Your task to perform on an android device: Empty the shopping cart on walmart.com. Add usb-b to the cart on walmart.com, then select checkout. Image 0: 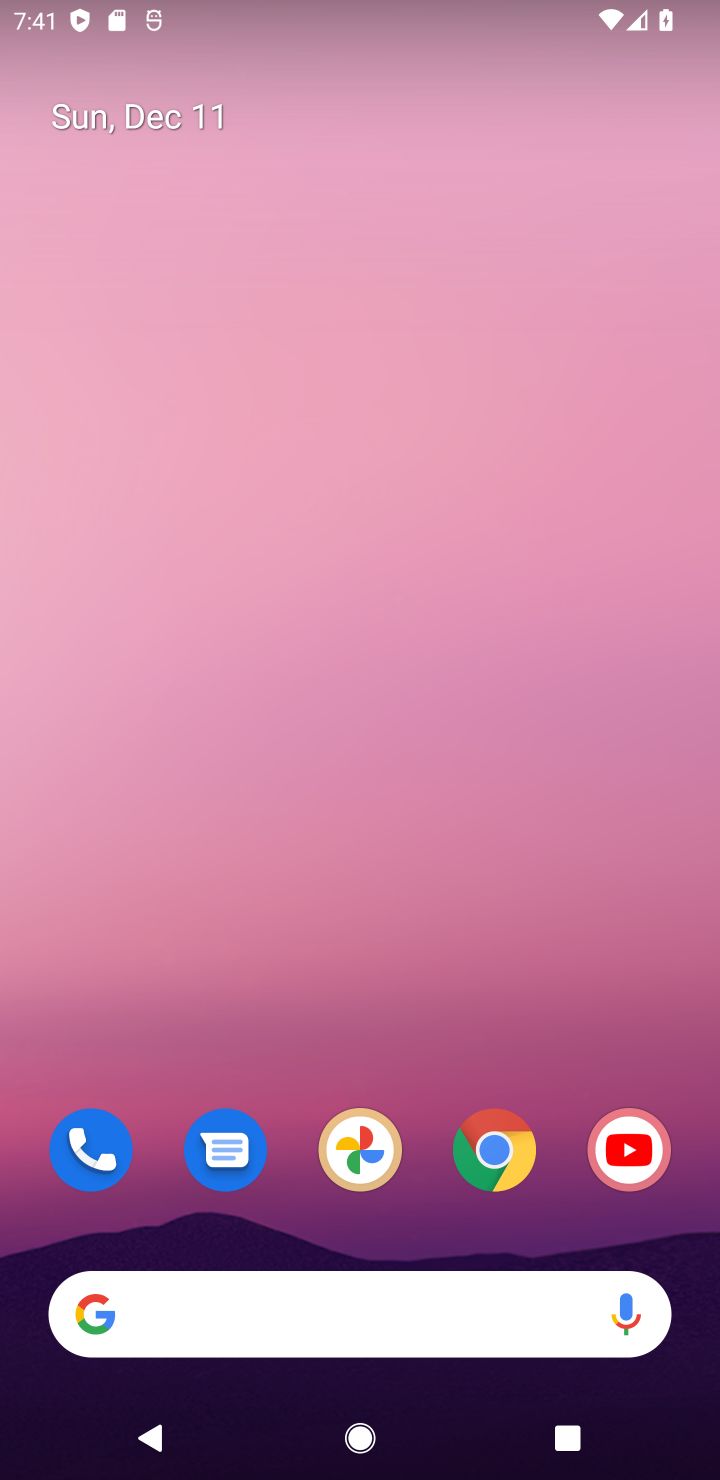
Step 0: click (496, 1152)
Your task to perform on an android device: Empty the shopping cart on walmart.com. Add usb-b to the cart on walmart.com, then select checkout. Image 1: 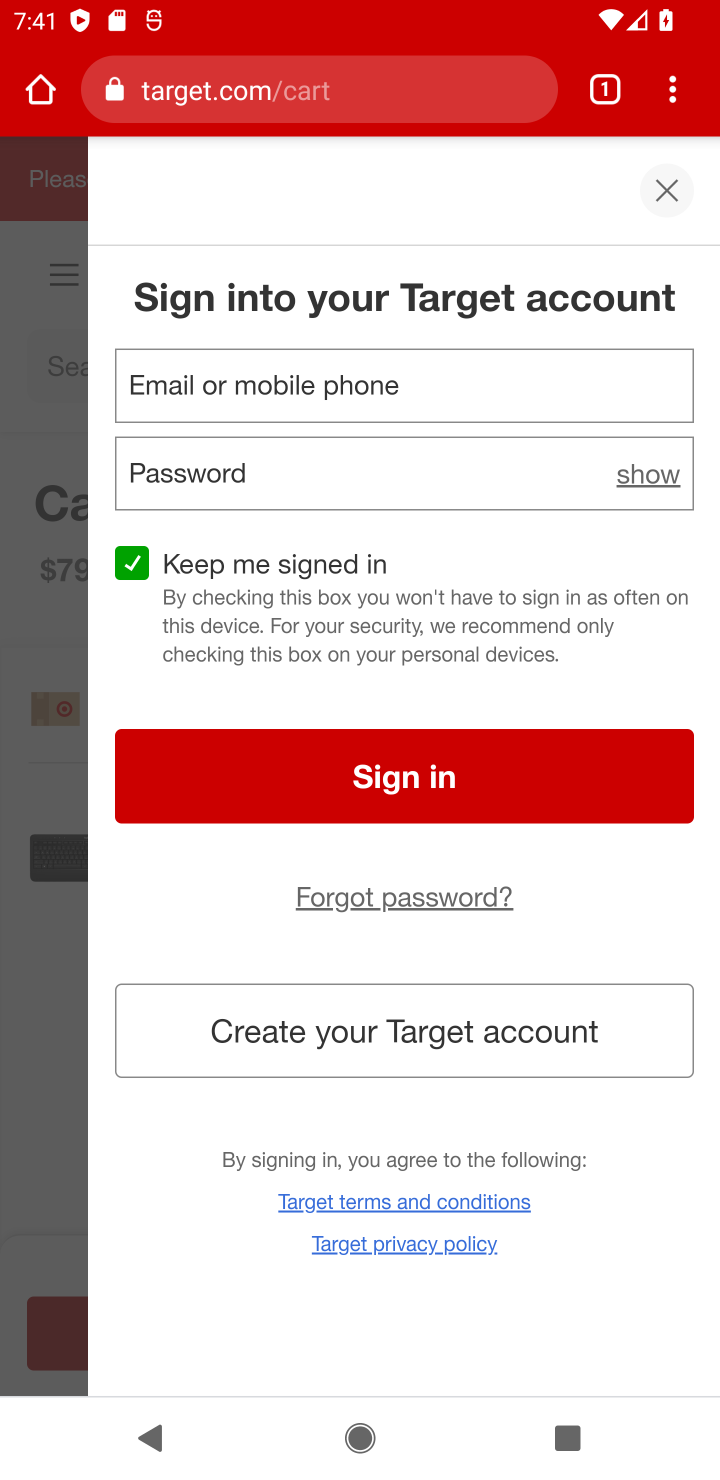
Step 1: click (442, 94)
Your task to perform on an android device: Empty the shopping cart on walmart.com. Add usb-b to the cart on walmart.com, then select checkout. Image 2: 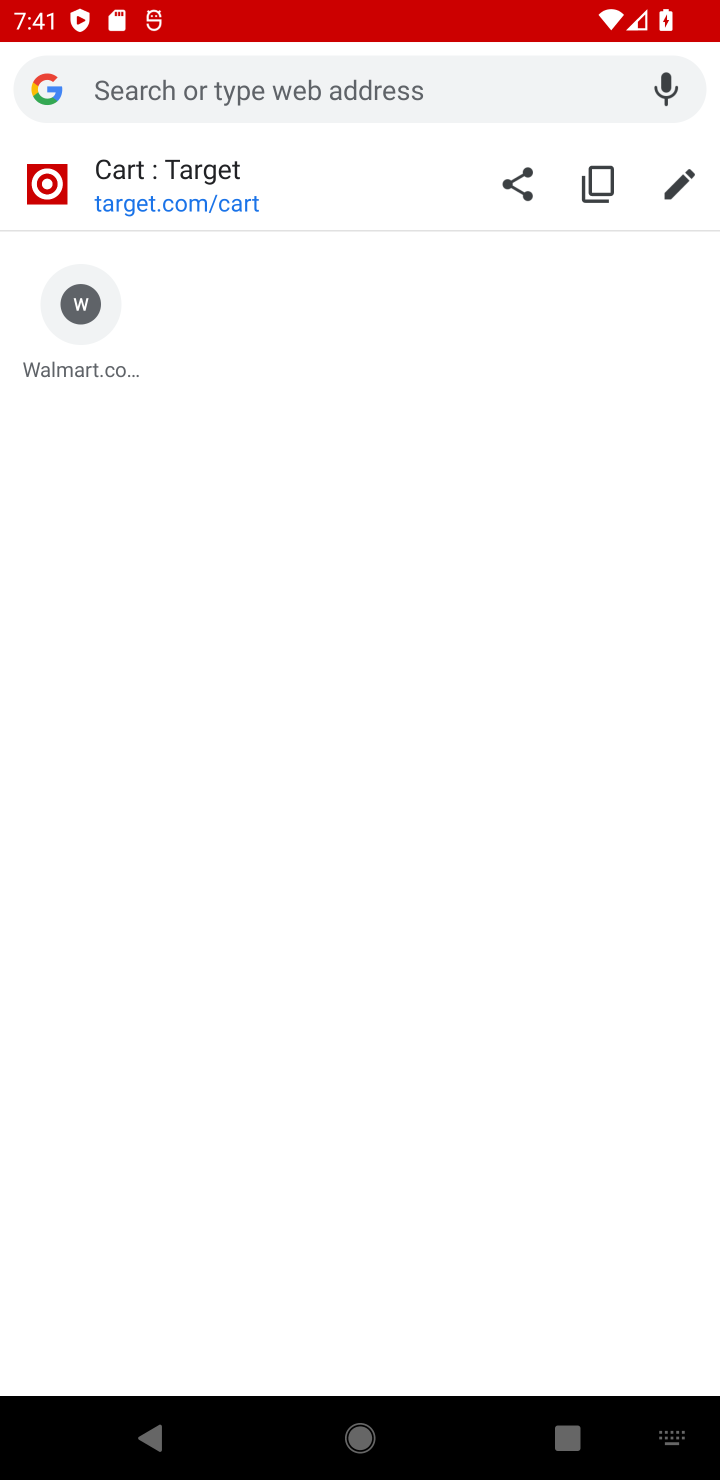
Step 2: type "walmart.com"
Your task to perform on an android device: Empty the shopping cart on walmart.com. Add usb-b to the cart on walmart.com, then select checkout. Image 3: 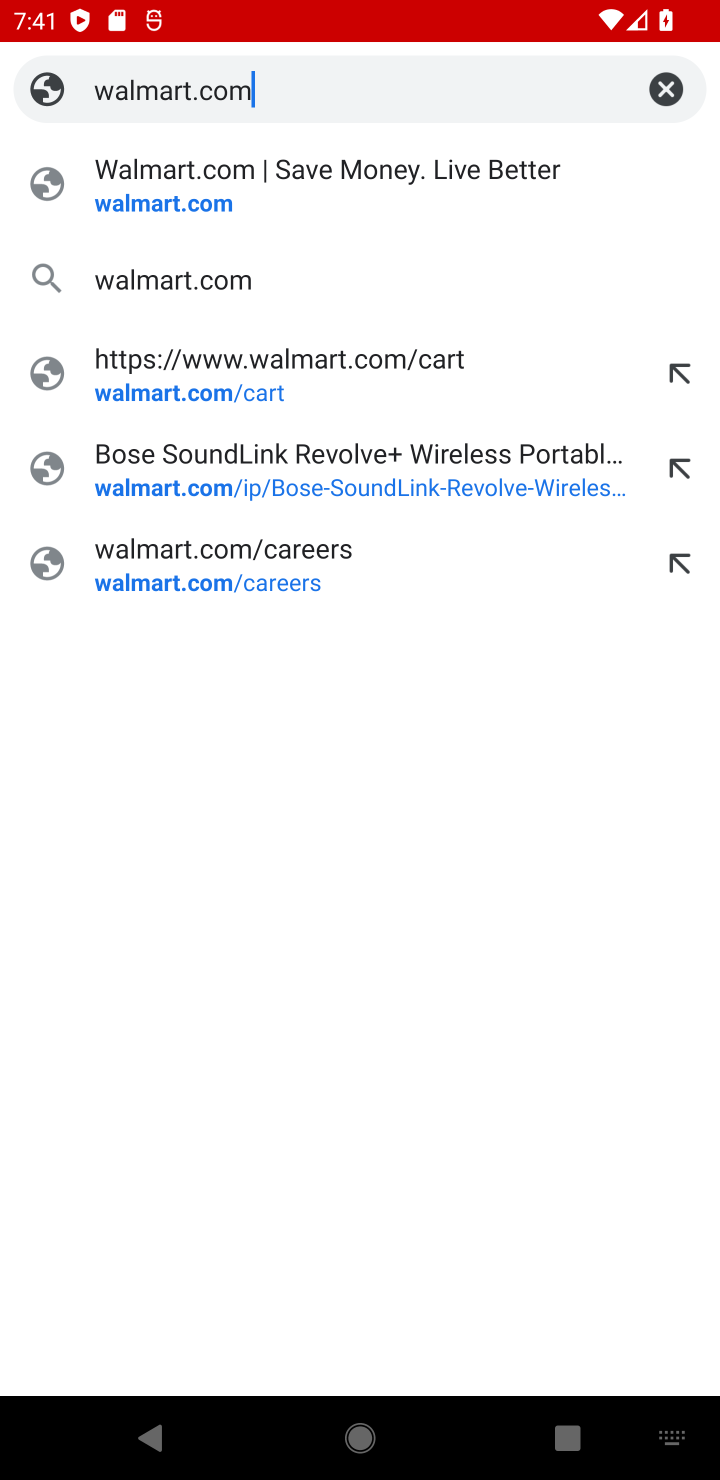
Step 3: click (221, 279)
Your task to perform on an android device: Empty the shopping cart on walmart.com. Add usb-b to the cart on walmart.com, then select checkout. Image 4: 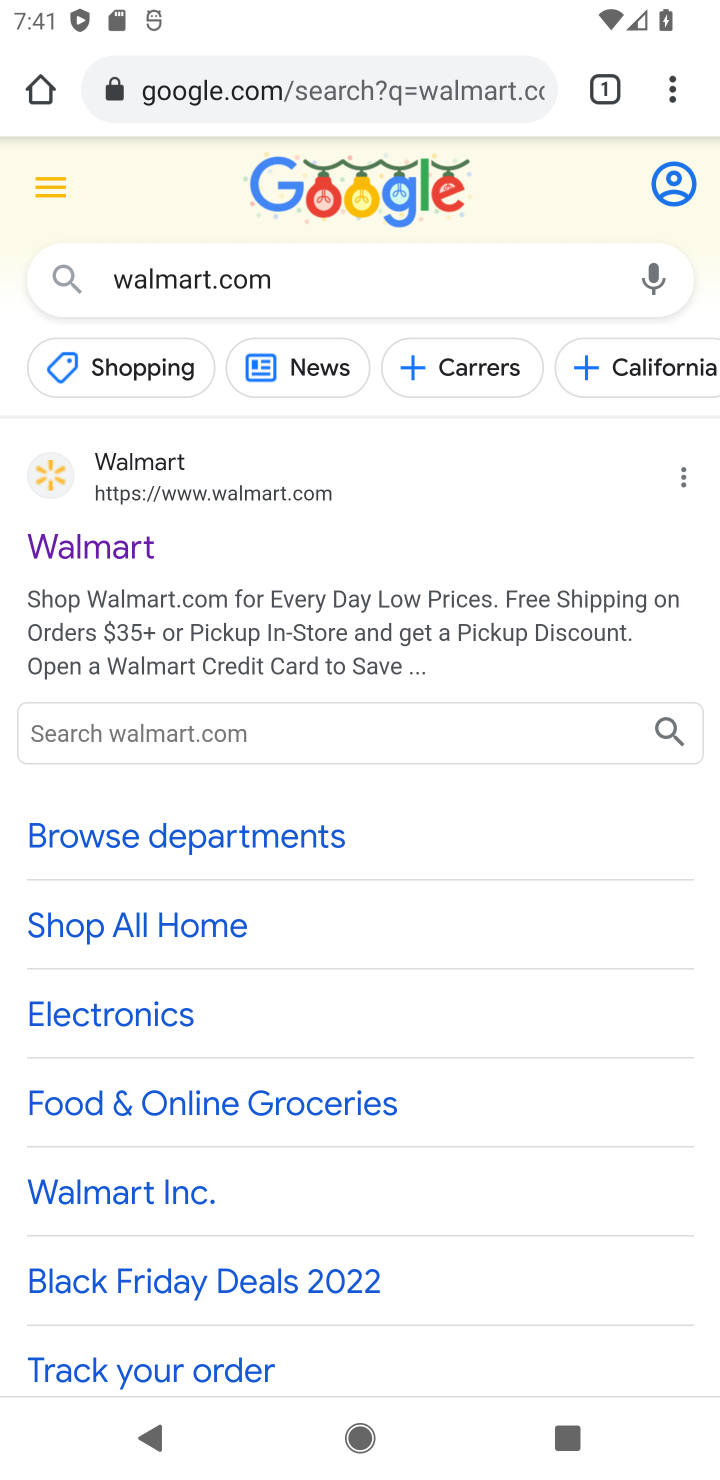
Step 4: click (111, 550)
Your task to perform on an android device: Empty the shopping cart on walmart.com. Add usb-b to the cart on walmart.com, then select checkout. Image 5: 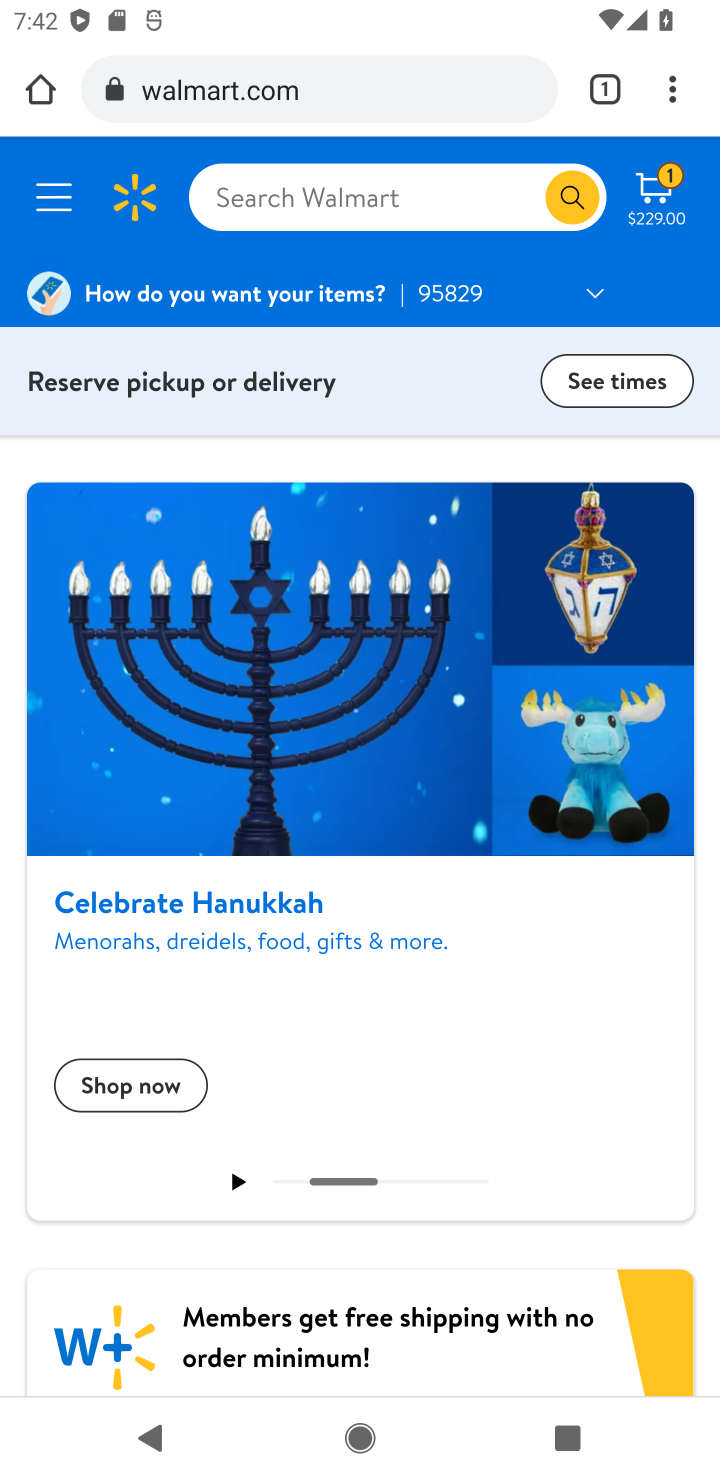
Step 5: click (661, 195)
Your task to perform on an android device: Empty the shopping cart on walmart.com. Add usb-b to the cart on walmart.com, then select checkout. Image 6: 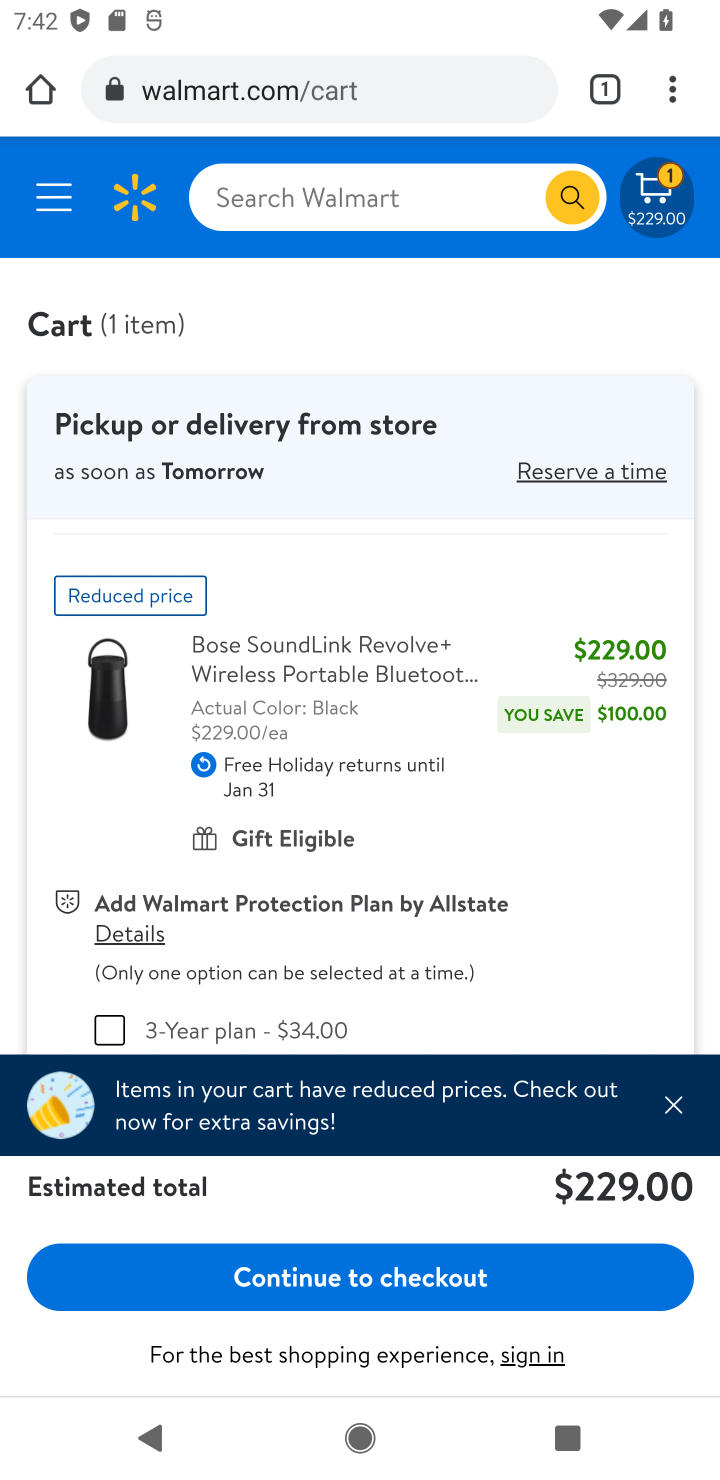
Step 6: drag from (355, 971) to (422, 643)
Your task to perform on an android device: Empty the shopping cart on walmart.com. Add usb-b to the cart on walmart.com, then select checkout. Image 7: 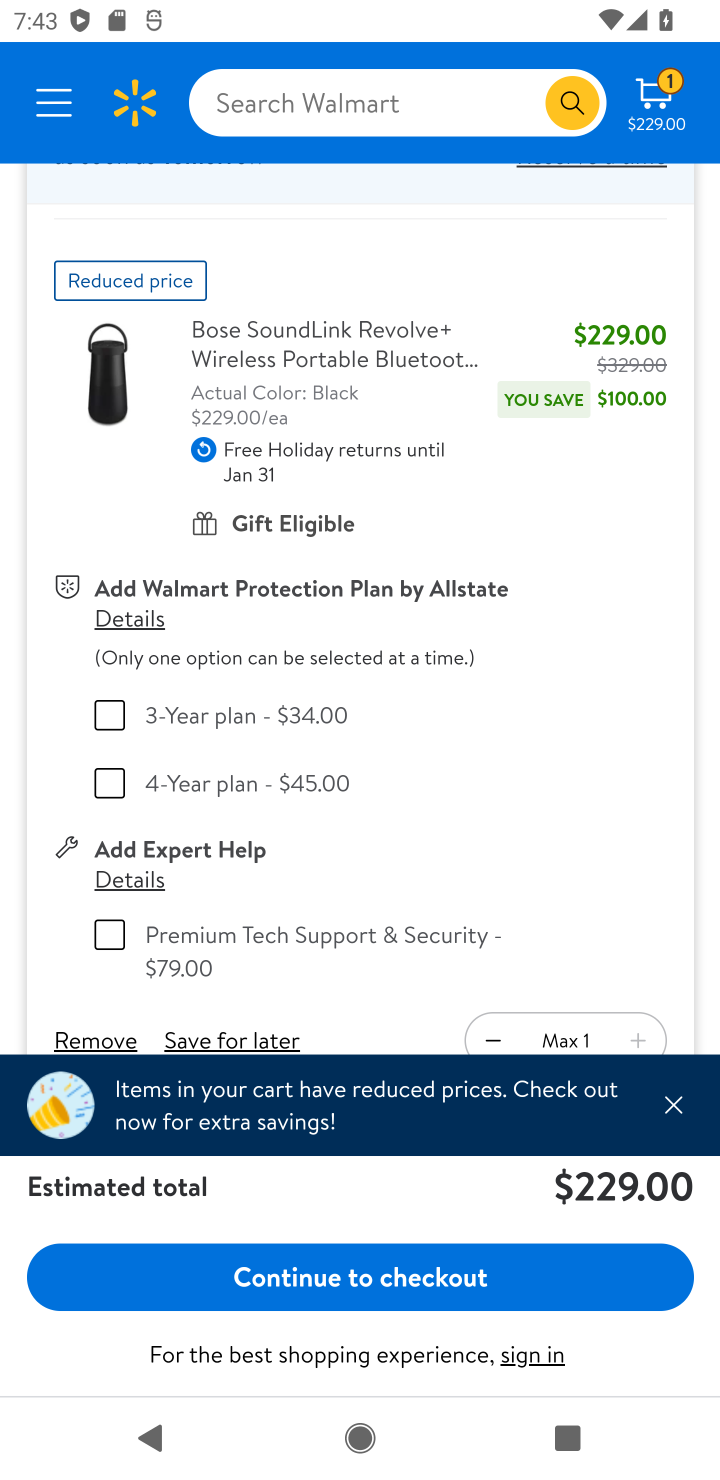
Step 7: click (98, 1036)
Your task to perform on an android device: Empty the shopping cart on walmart.com. Add usb-b to the cart on walmart.com, then select checkout. Image 8: 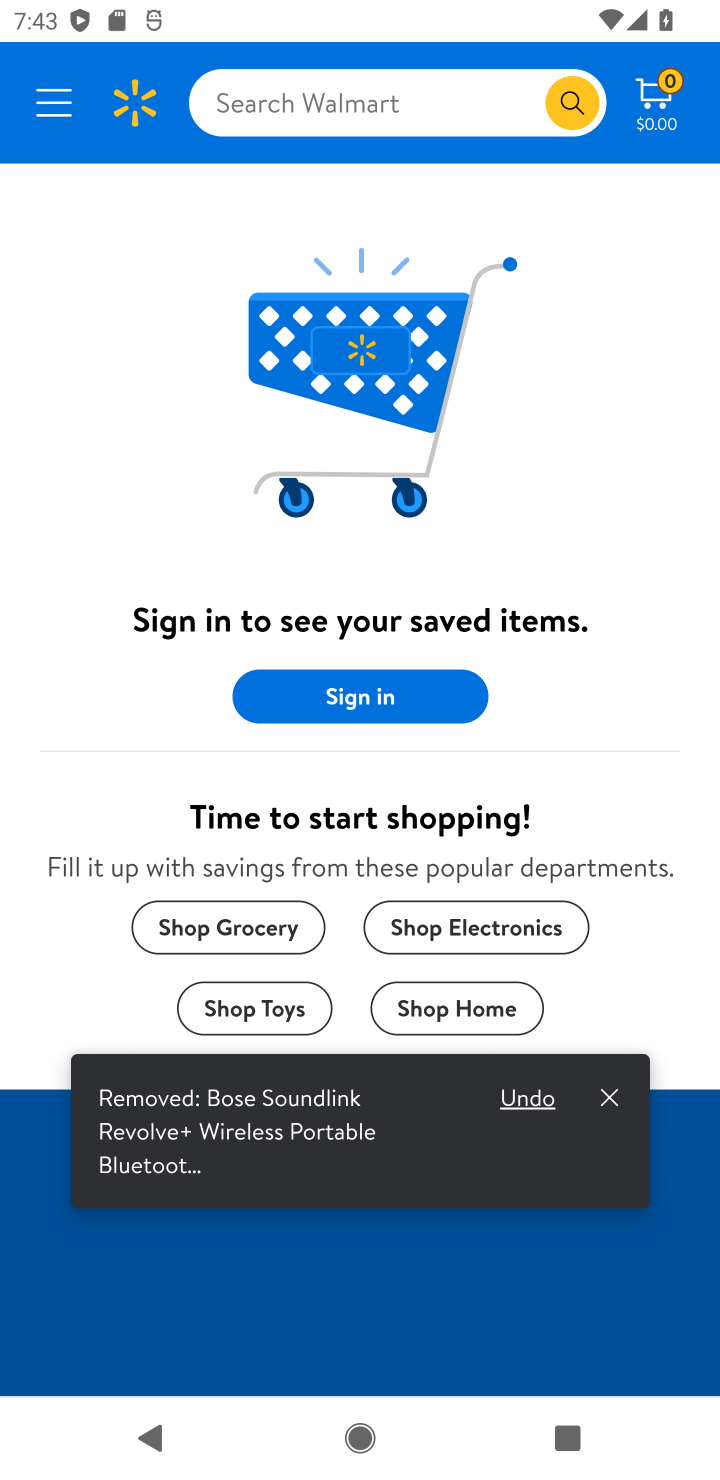
Step 8: click (386, 127)
Your task to perform on an android device: Empty the shopping cart on walmart.com. Add usb-b to the cart on walmart.com, then select checkout. Image 9: 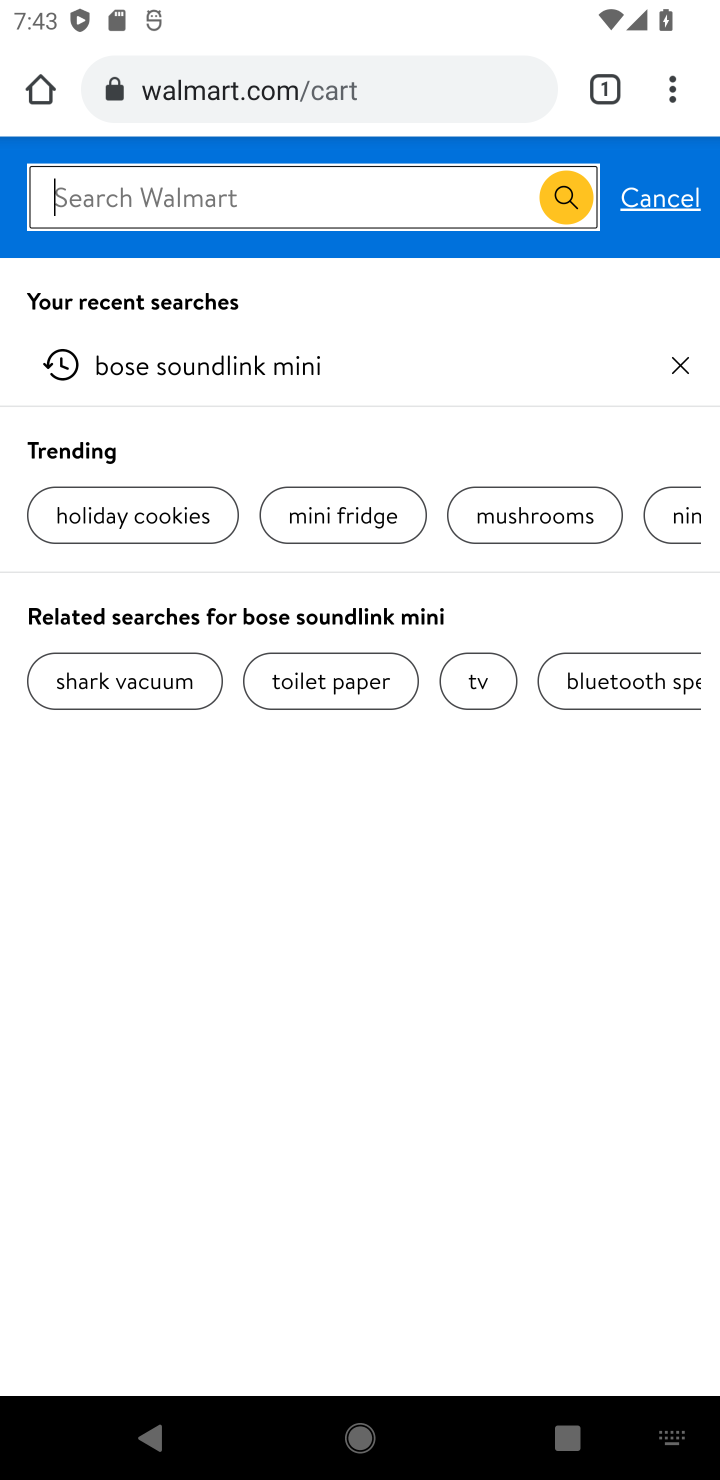
Step 9: type "usb-b"
Your task to perform on an android device: Empty the shopping cart on walmart.com. Add usb-b to the cart on walmart.com, then select checkout. Image 10: 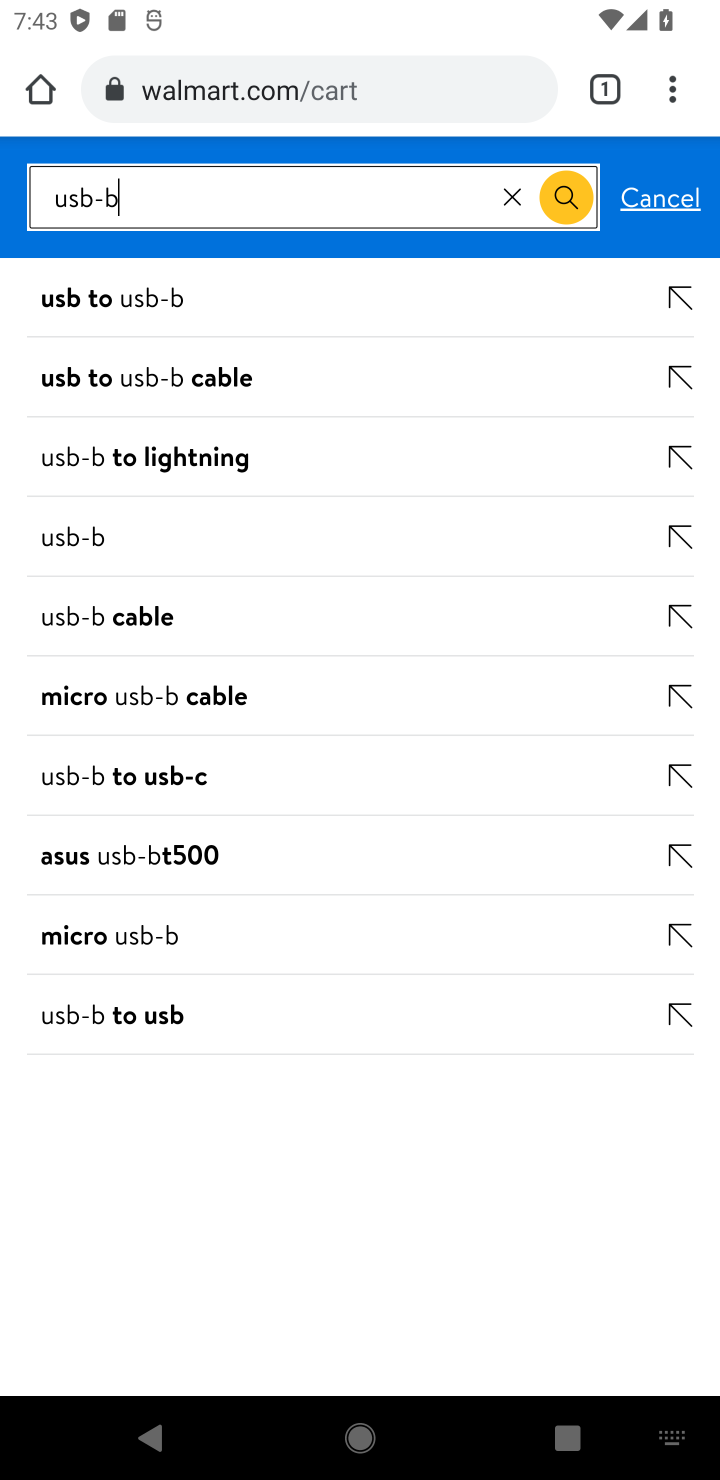
Step 10: click (72, 533)
Your task to perform on an android device: Empty the shopping cart on walmart.com. Add usb-b to the cart on walmart.com, then select checkout. Image 11: 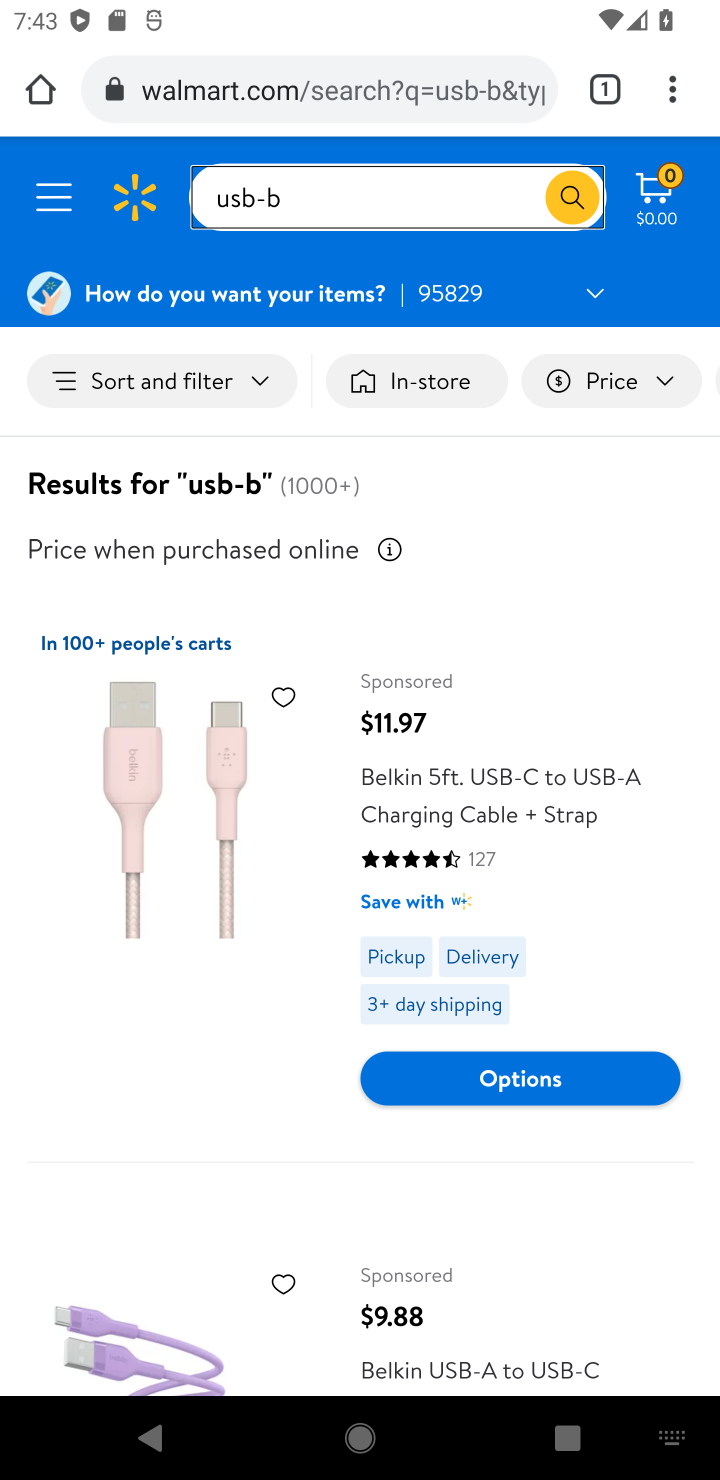
Step 11: click (411, 769)
Your task to perform on an android device: Empty the shopping cart on walmart.com. Add usb-b to the cart on walmart.com, then select checkout. Image 12: 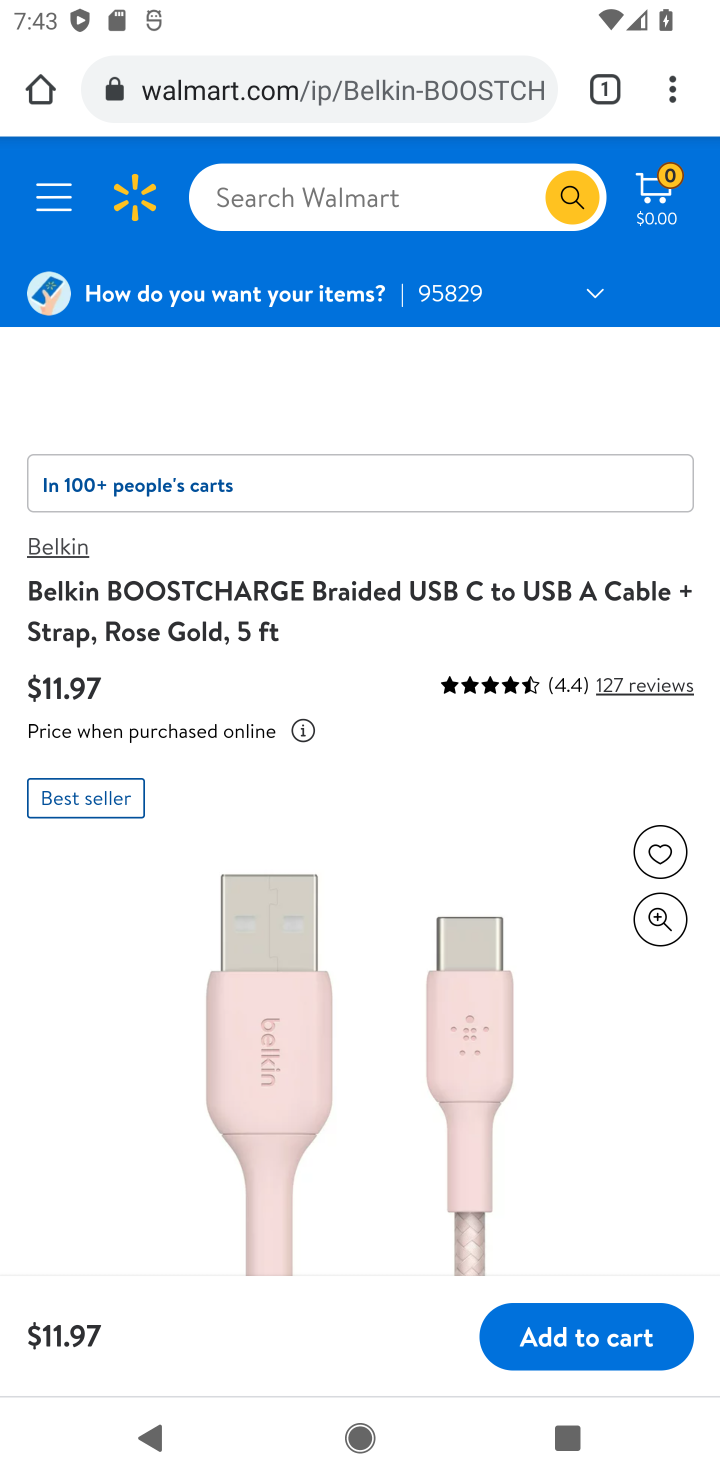
Step 12: click (560, 1336)
Your task to perform on an android device: Empty the shopping cart on walmart.com. Add usb-b to the cart on walmart.com, then select checkout. Image 13: 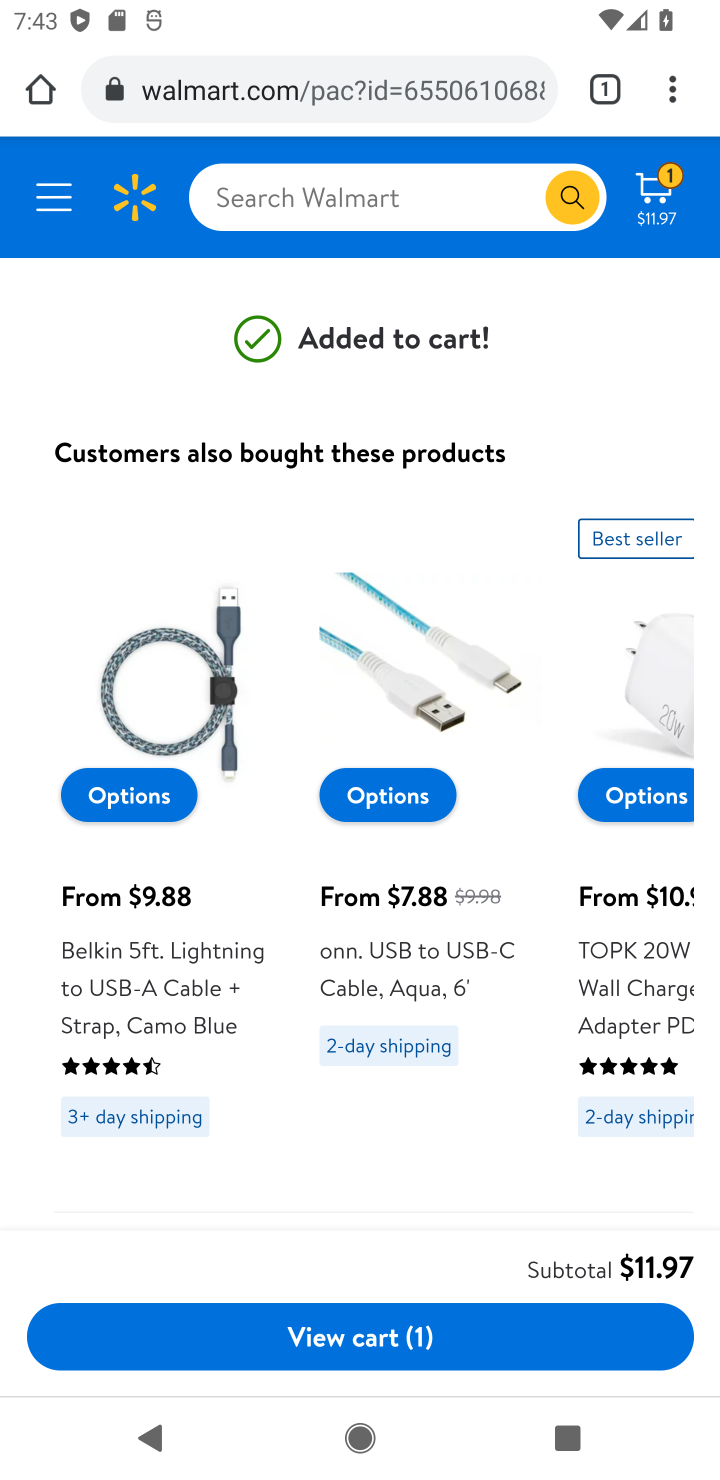
Step 13: click (348, 1338)
Your task to perform on an android device: Empty the shopping cart on walmart.com. Add usb-b to the cart on walmart.com, then select checkout. Image 14: 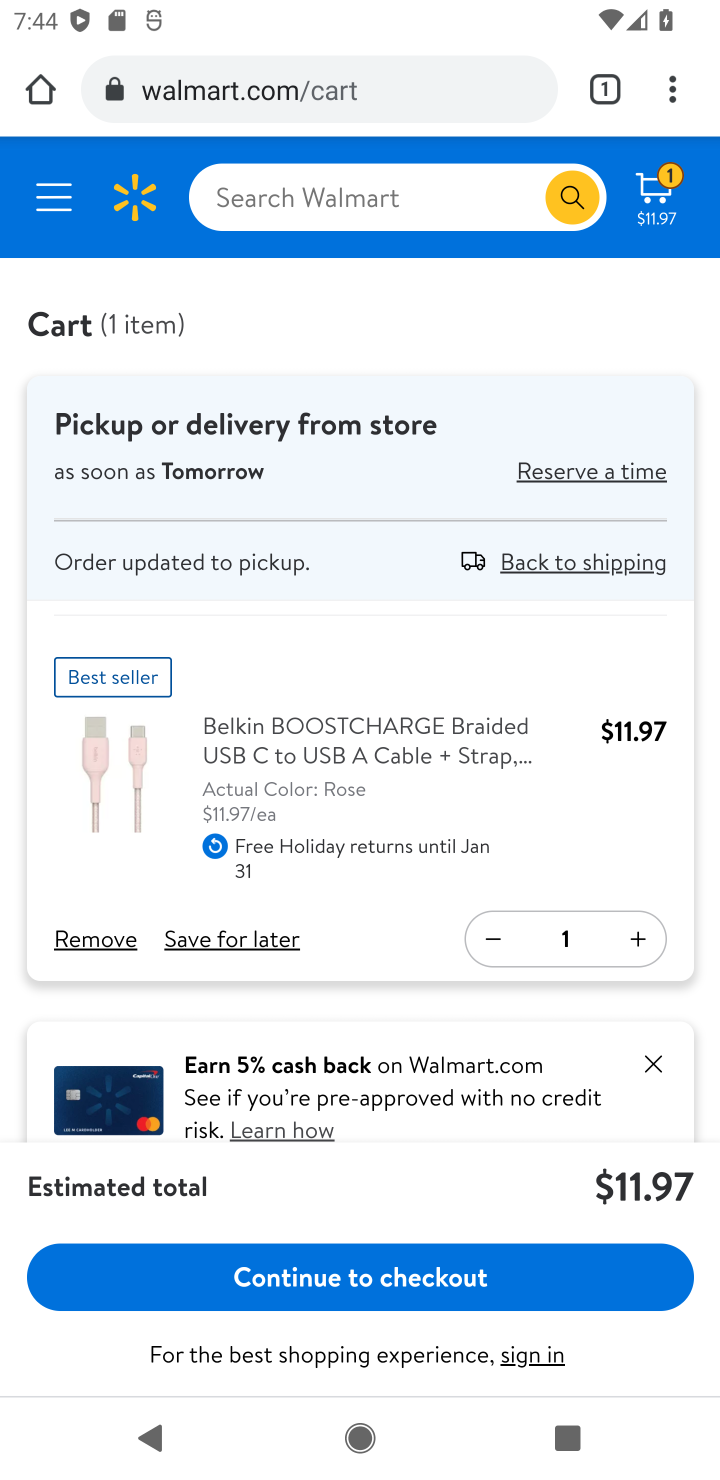
Step 14: click (343, 1284)
Your task to perform on an android device: Empty the shopping cart on walmart.com. Add usb-b to the cart on walmart.com, then select checkout. Image 15: 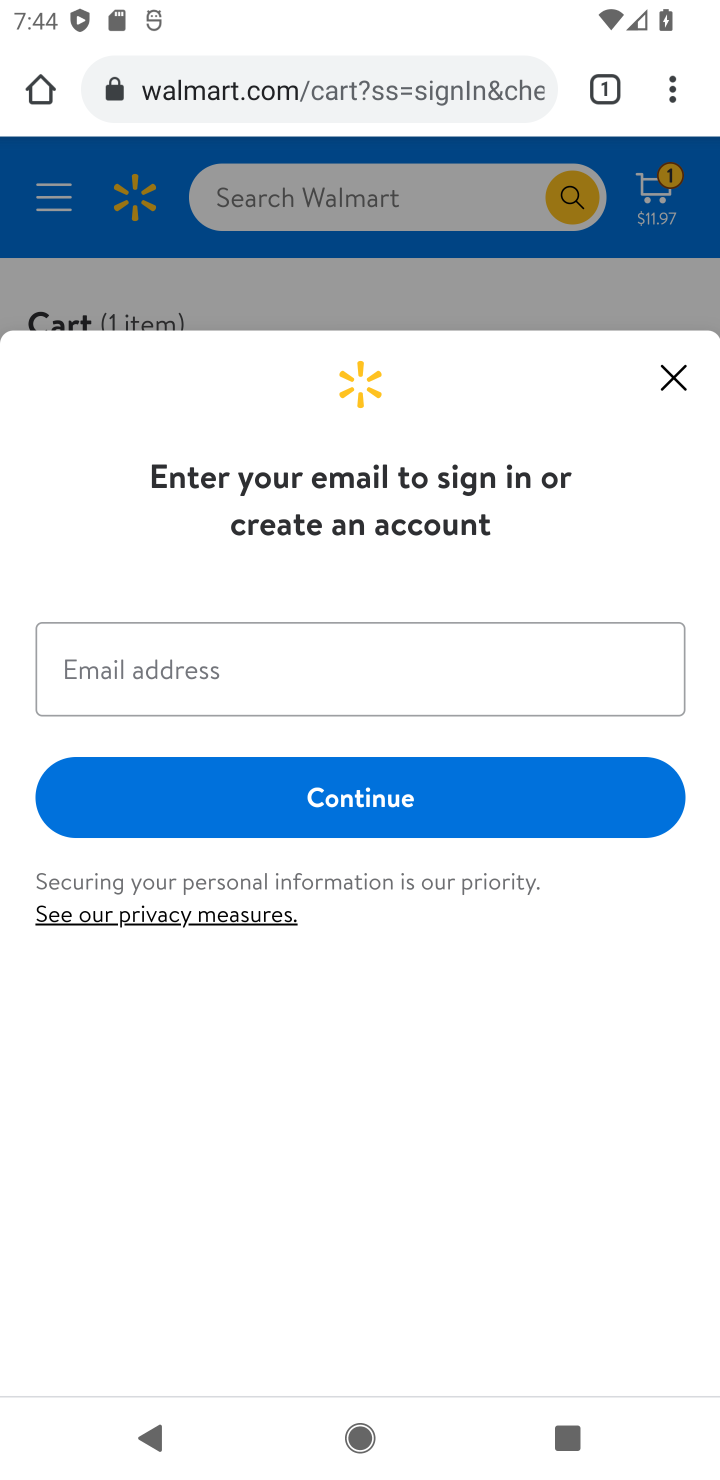
Step 15: task complete